Your task to perform on an android device: Open Youtube and go to the subscriptions tab Image 0: 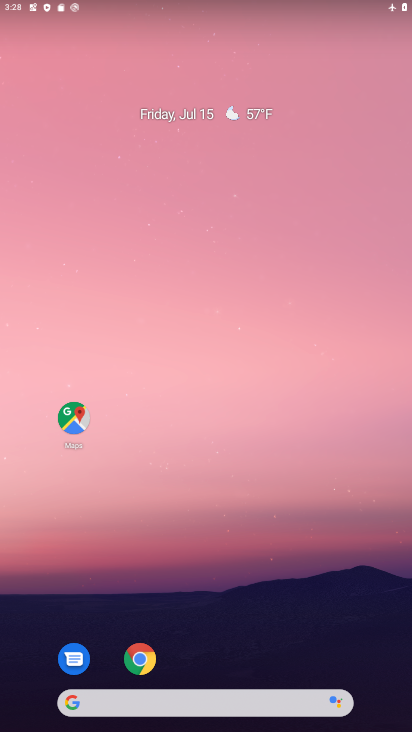
Step 0: drag from (118, 548) to (388, 17)
Your task to perform on an android device: Open Youtube and go to the subscriptions tab Image 1: 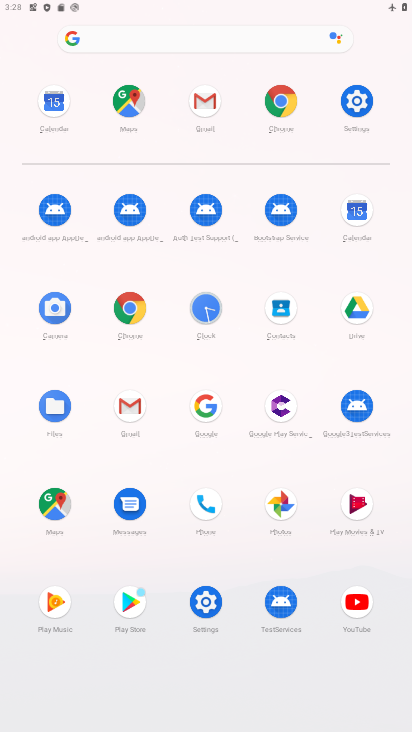
Step 1: click (356, 599)
Your task to perform on an android device: Open Youtube and go to the subscriptions tab Image 2: 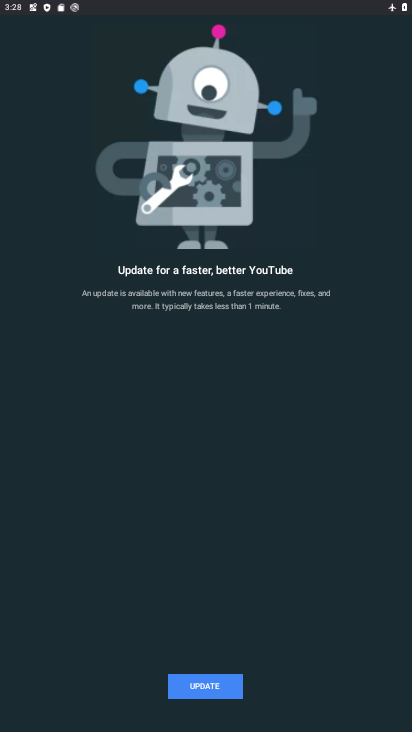
Step 2: click (189, 684)
Your task to perform on an android device: Open Youtube and go to the subscriptions tab Image 3: 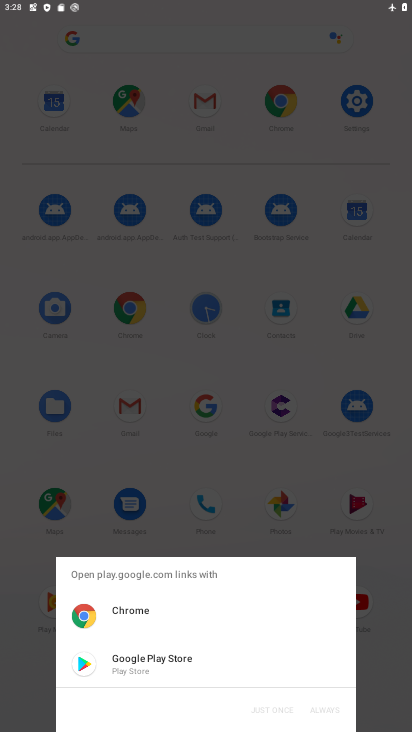
Step 3: click (113, 669)
Your task to perform on an android device: Open Youtube and go to the subscriptions tab Image 4: 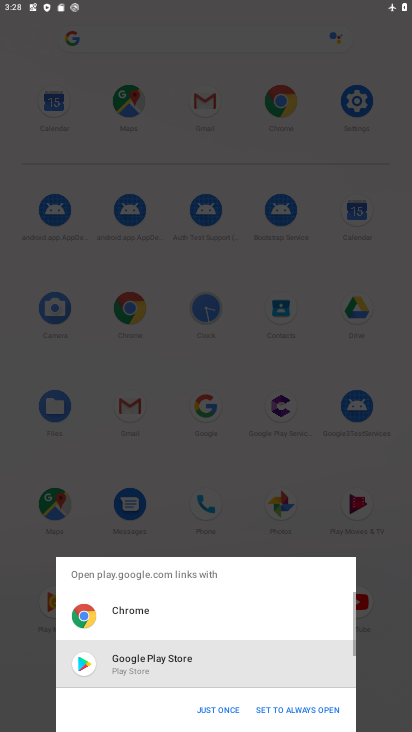
Step 4: click (222, 711)
Your task to perform on an android device: Open Youtube and go to the subscriptions tab Image 5: 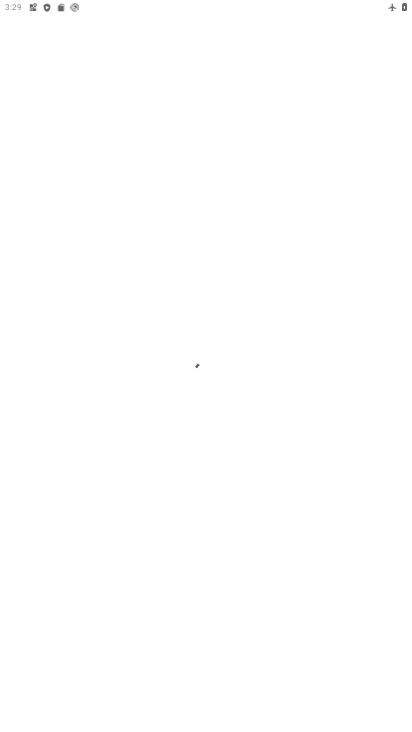
Step 5: task complete